Your task to perform on an android device: Is it going to rain this weekend? Image 0: 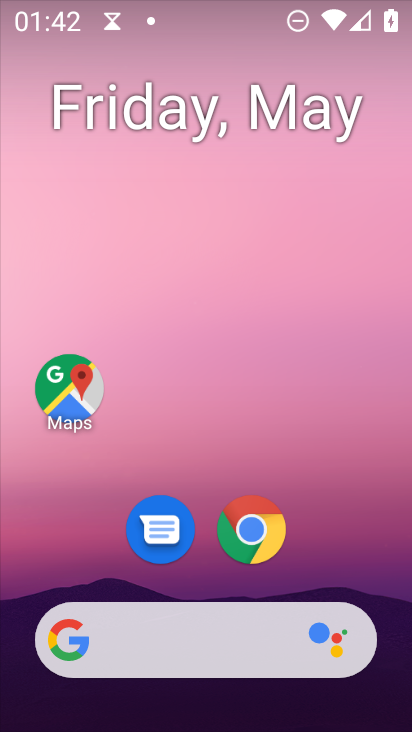
Step 0: drag from (323, 575) to (299, 253)
Your task to perform on an android device: Is it going to rain this weekend? Image 1: 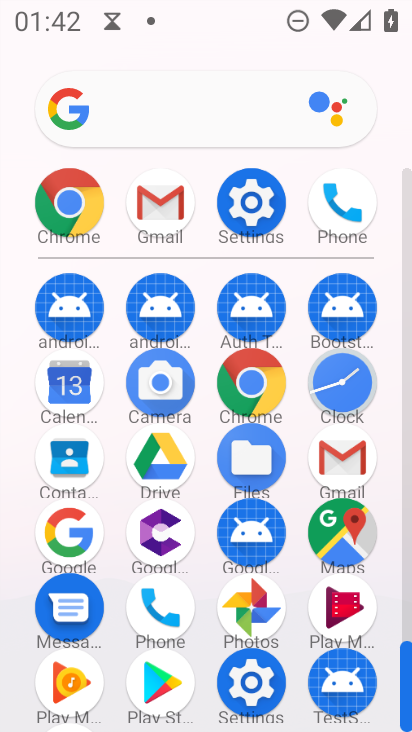
Step 1: click (67, 384)
Your task to perform on an android device: Is it going to rain this weekend? Image 2: 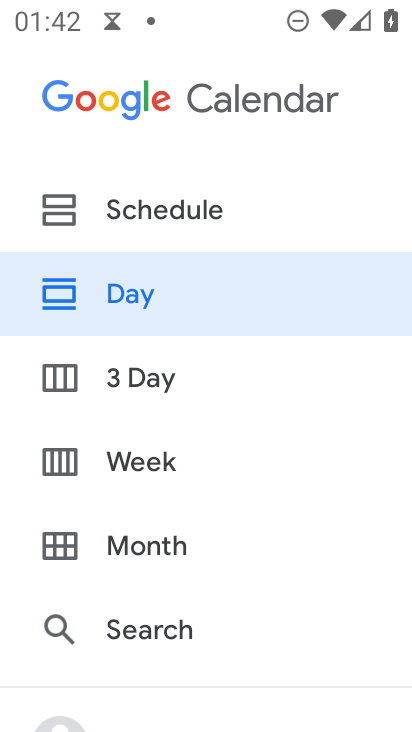
Step 2: click (123, 543)
Your task to perform on an android device: Is it going to rain this weekend? Image 3: 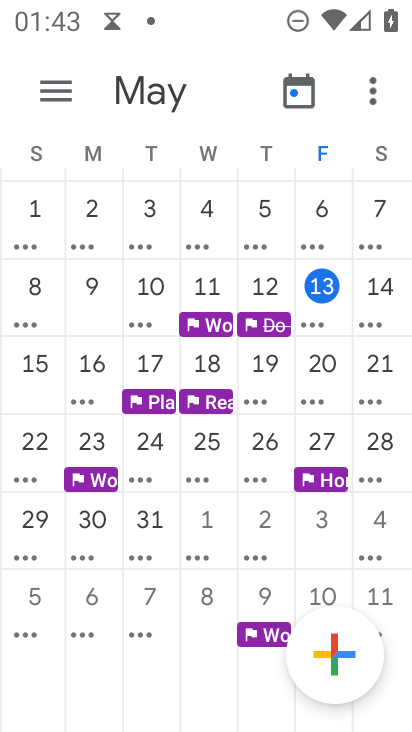
Step 3: task complete